Your task to perform on an android device: What is the recent news? Image 0: 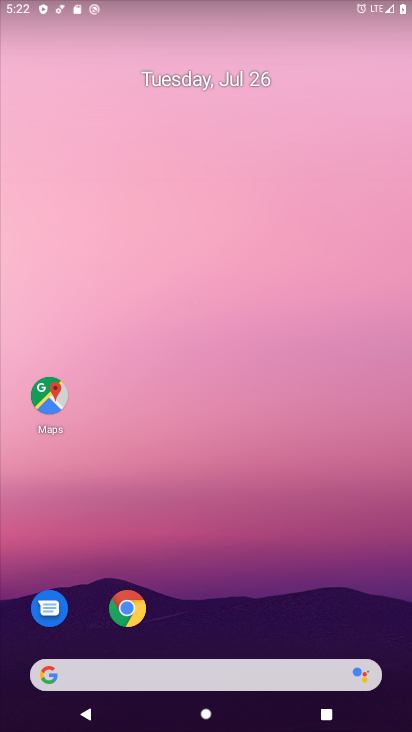
Step 0: drag from (315, 637) to (247, 35)
Your task to perform on an android device: What is the recent news? Image 1: 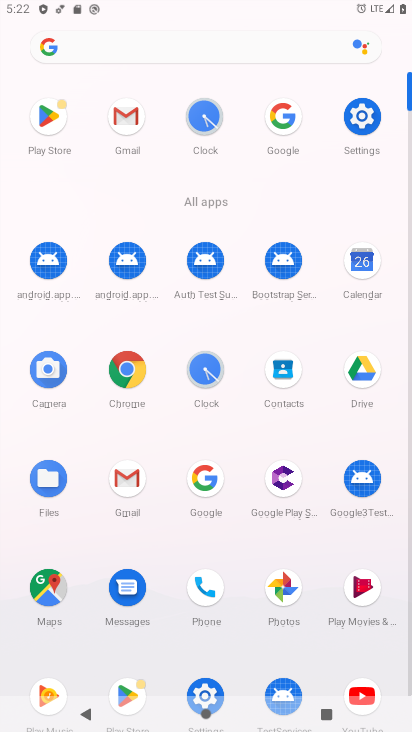
Step 1: click (206, 492)
Your task to perform on an android device: What is the recent news? Image 2: 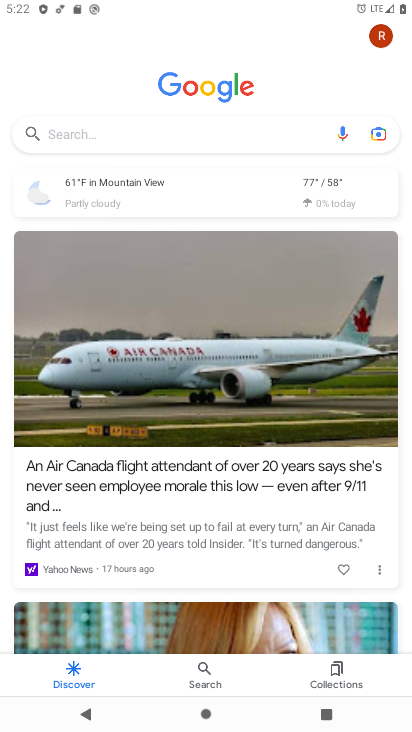
Step 2: click (82, 135)
Your task to perform on an android device: What is the recent news? Image 3: 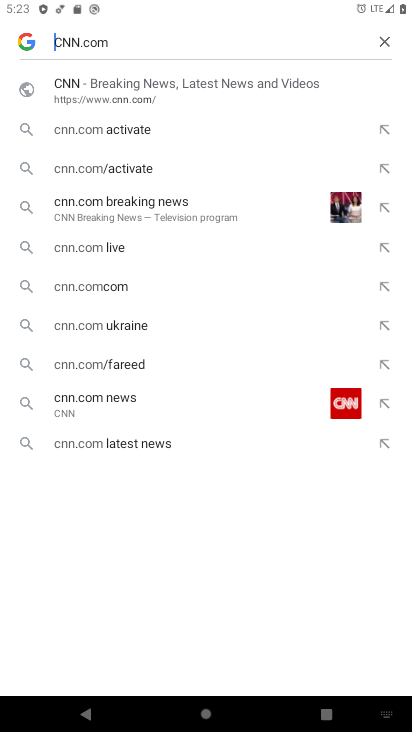
Step 3: click (383, 46)
Your task to perform on an android device: What is the recent news? Image 4: 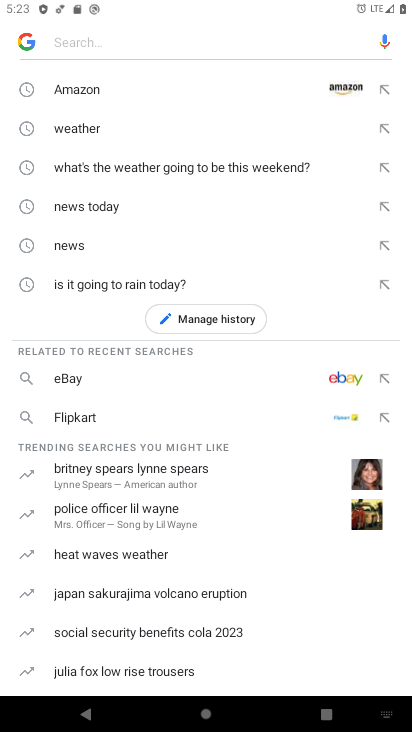
Step 4: type "What is the recent news?"
Your task to perform on an android device: What is the recent news? Image 5: 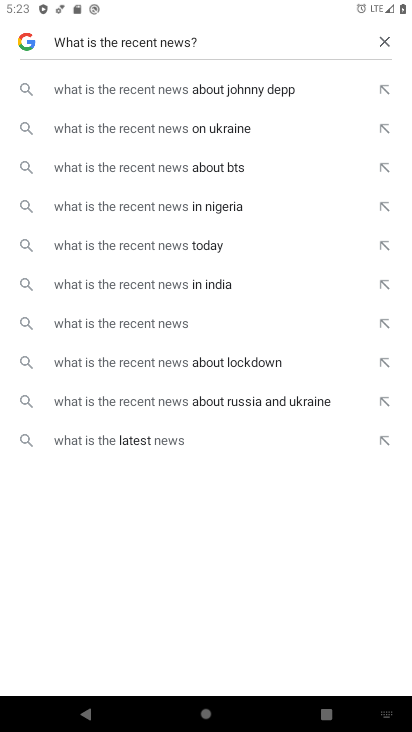
Step 5: click (151, 321)
Your task to perform on an android device: What is the recent news? Image 6: 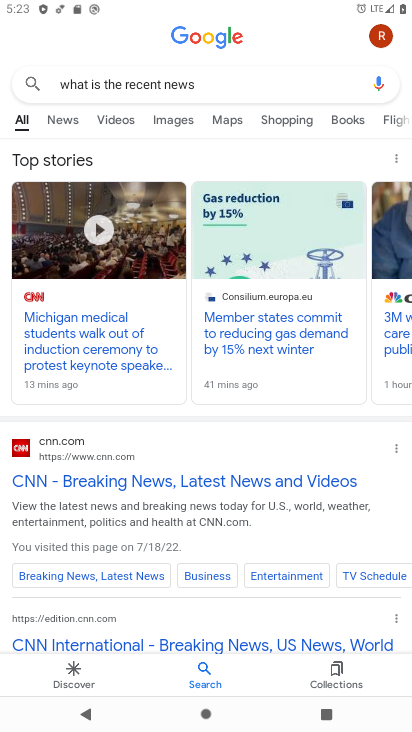
Step 6: task complete